Your task to perform on an android device: stop showing notifications on the lock screen Image 0: 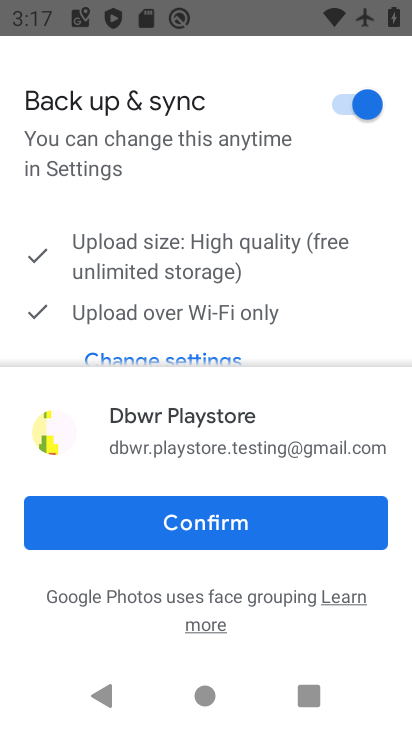
Step 0: press home button
Your task to perform on an android device: stop showing notifications on the lock screen Image 1: 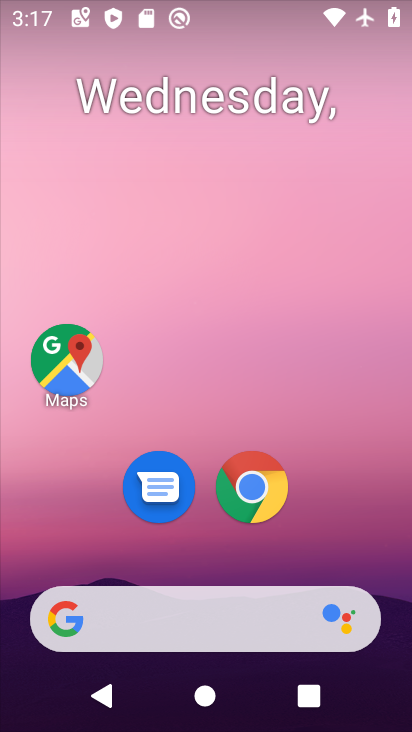
Step 1: drag from (365, 543) to (406, 159)
Your task to perform on an android device: stop showing notifications on the lock screen Image 2: 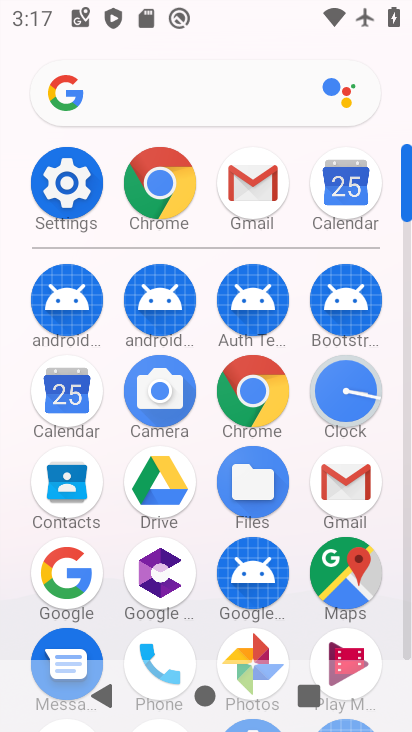
Step 2: click (41, 164)
Your task to perform on an android device: stop showing notifications on the lock screen Image 3: 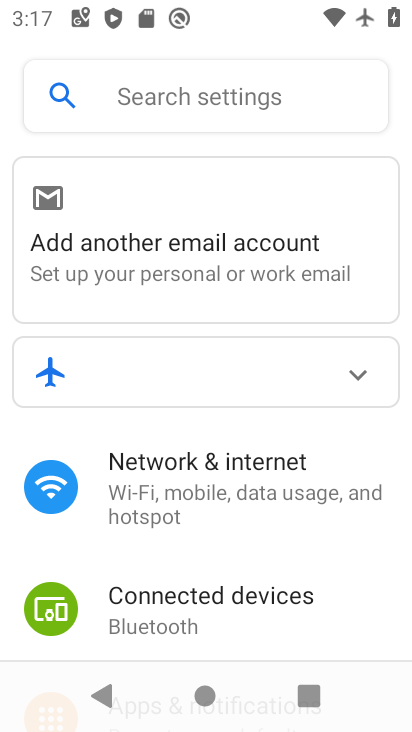
Step 3: drag from (147, 526) to (226, 209)
Your task to perform on an android device: stop showing notifications on the lock screen Image 4: 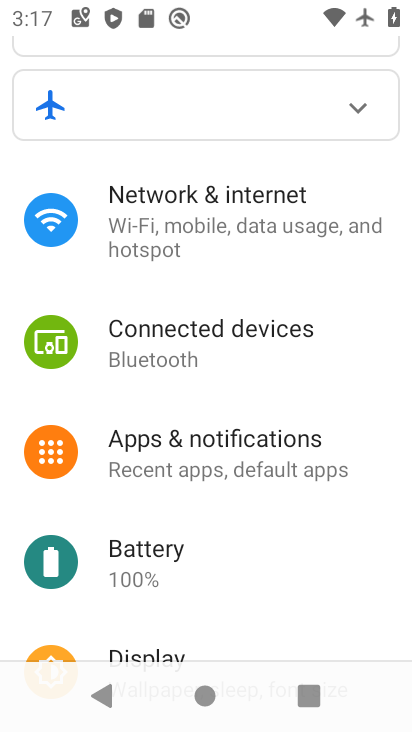
Step 4: drag from (274, 578) to (335, 217)
Your task to perform on an android device: stop showing notifications on the lock screen Image 5: 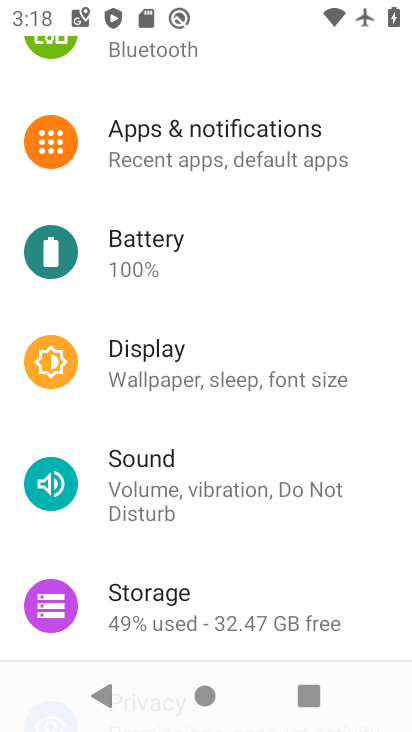
Step 5: click (291, 156)
Your task to perform on an android device: stop showing notifications on the lock screen Image 6: 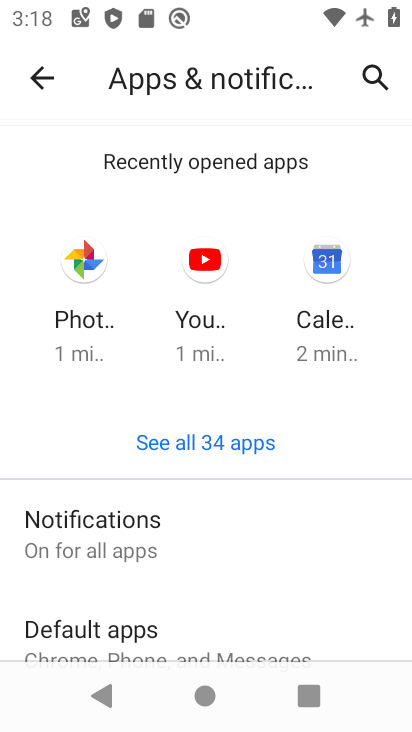
Step 6: click (118, 527)
Your task to perform on an android device: stop showing notifications on the lock screen Image 7: 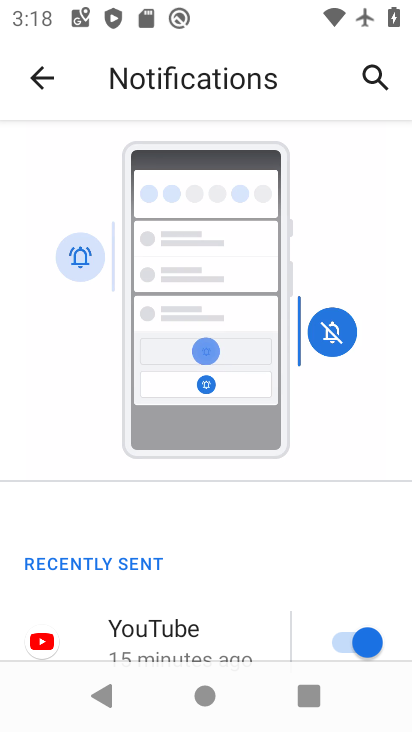
Step 7: drag from (169, 627) to (221, 251)
Your task to perform on an android device: stop showing notifications on the lock screen Image 8: 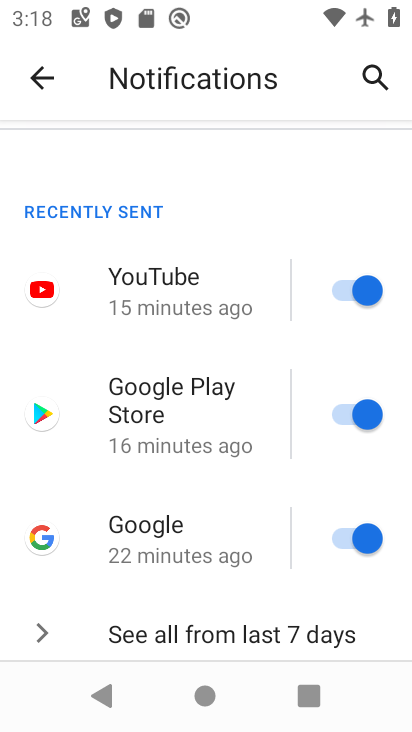
Step 8: drag from (233, 618) to (283, 254)
Your task to perform on an android device: stop showing notifications on the lock screen Image 9: 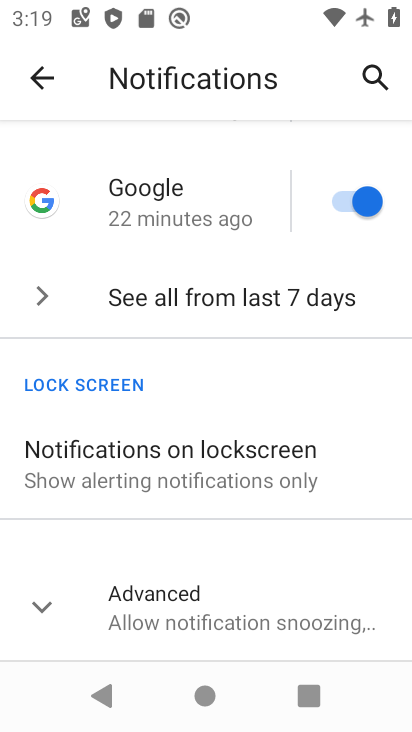
Step 9: click (196, 484)
Your task to perform on an android device: stop showing notifications on the lock screen Image 10: 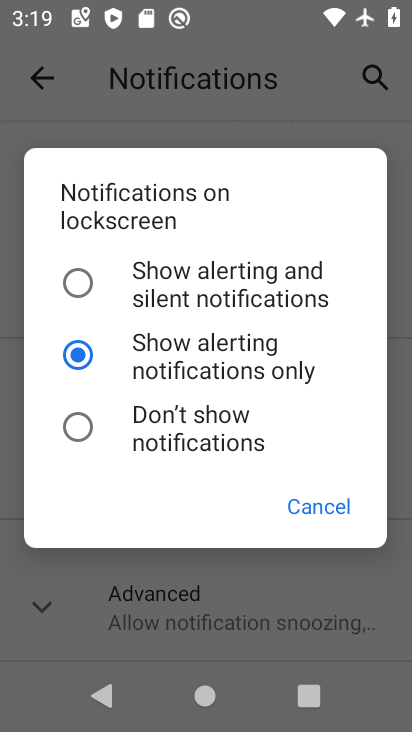
Step 10: click (84, 277)
Your task to perform on an android device: stop showing notifications on the lock screen Image 11: 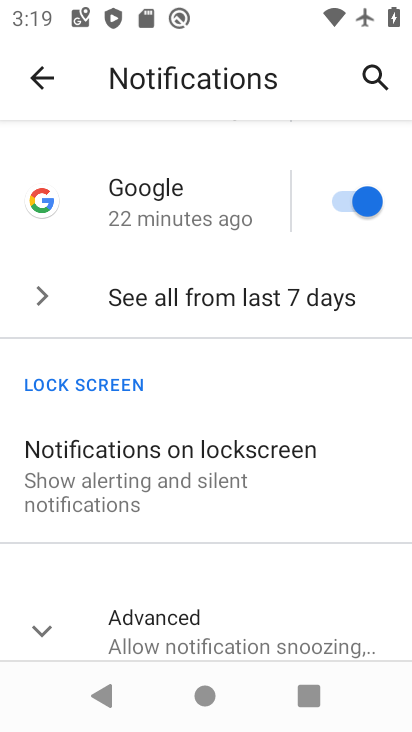
Step 11: task complete